Your task to perform on an android device: open app "Facebook" (install if not already installed) Image 0: 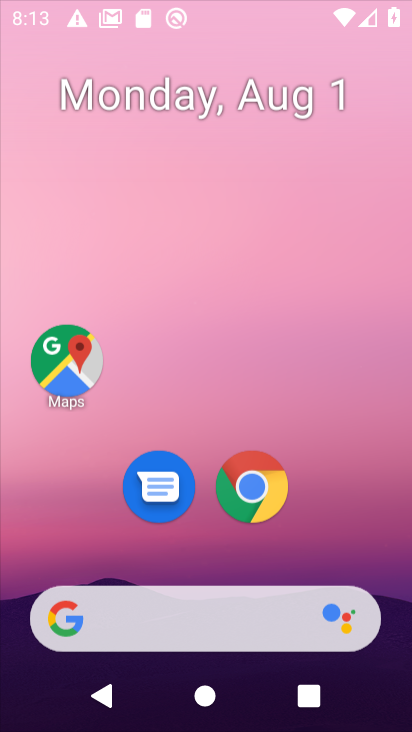
Step 0: press home button
Your task to perform on an android device: open app "Facebook" (install if not already installed) Image 1: 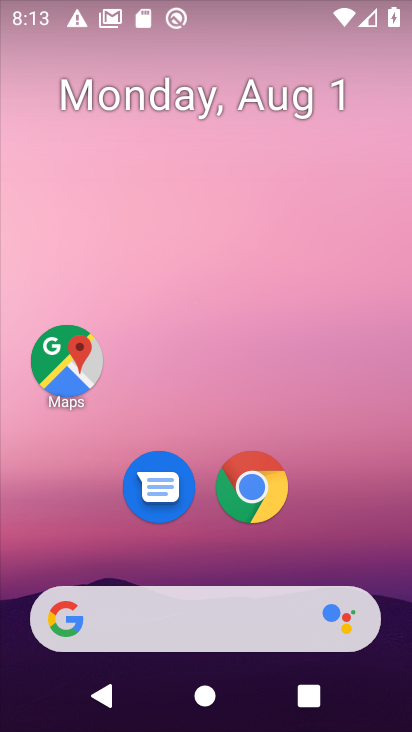
Step 1: drag from (370, 519) to (336, 84)
Your task to perform on an android device: open app "Facebook" (install if not already installed) Image 2: 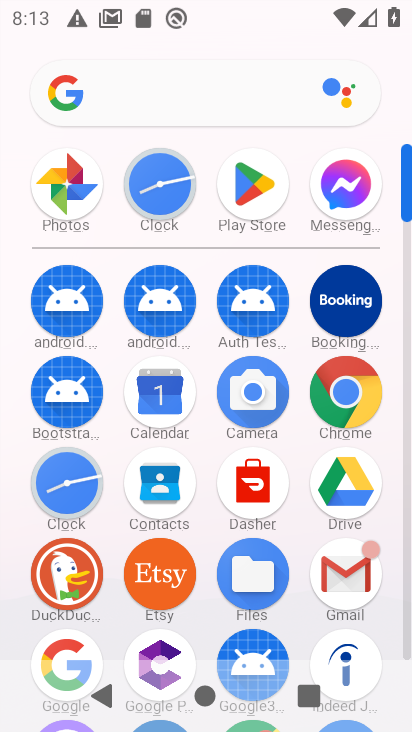
Step 2: click (258, 185)
Your task to perform on an android device: open app "Facebook" (install if not already installed) Image 3: 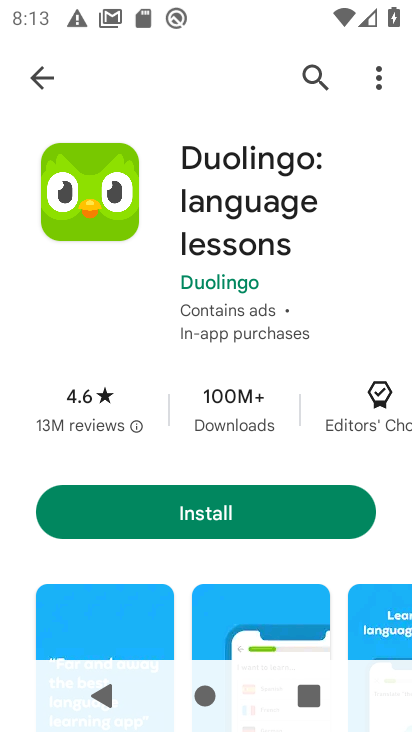
Step 3: click (310, 65)
Your task to perform on an android device: open app "Facebook" (install if not already installed) Image 4: 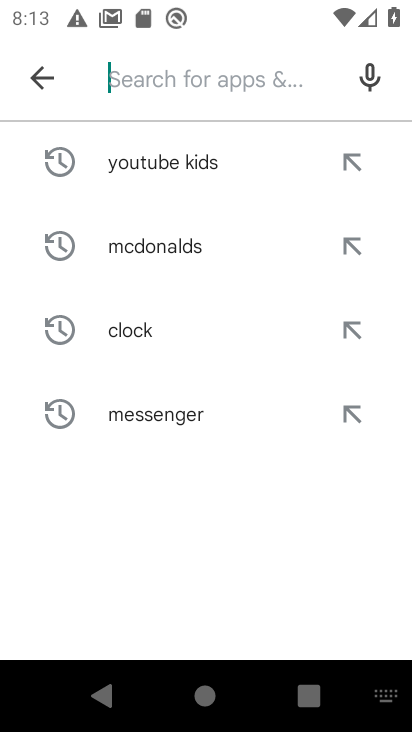
Step 4: type "facebook"
Your task to perform on an android device: open app "Facebook" (install if not already installed) Image 5: 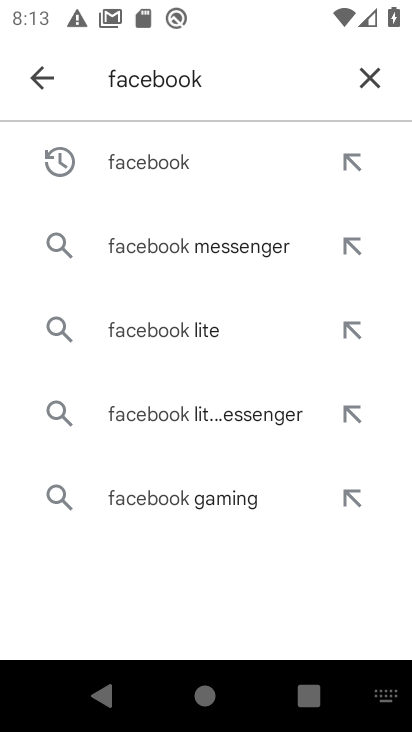
Step 5: click (176, 170)
Your task to perform on an android device: open app "Facebook" (install if not already installed) Image 6: 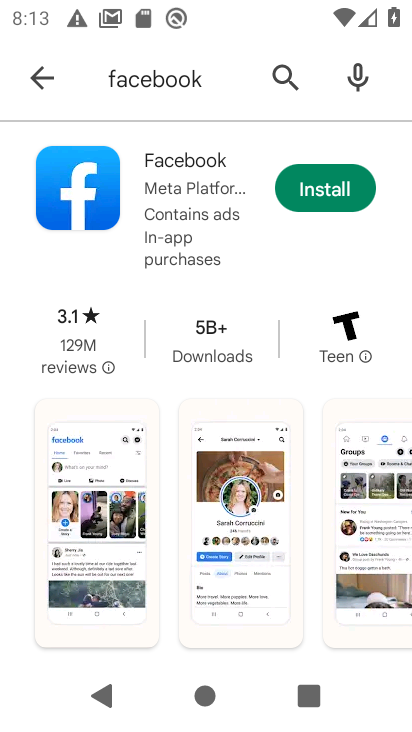
Step 6: click (346, 183)
Your task to perform on an android device: open app "Facebook" (install if not already installed) Image 7: 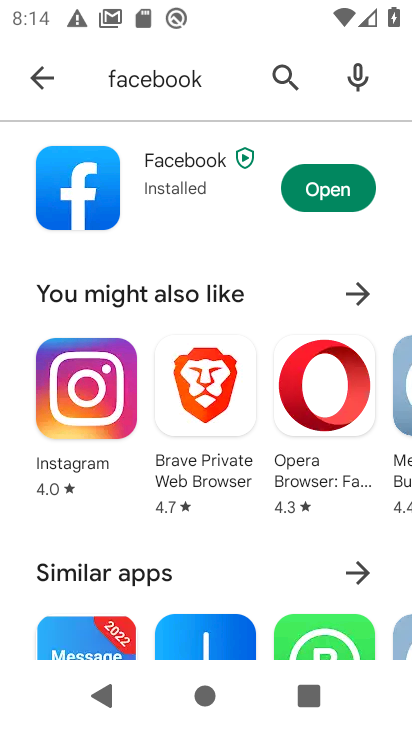
Step 7: click (339, 186)
Your task to perform on an android device: open app "Facebook" (install if not already installed) Image 8: 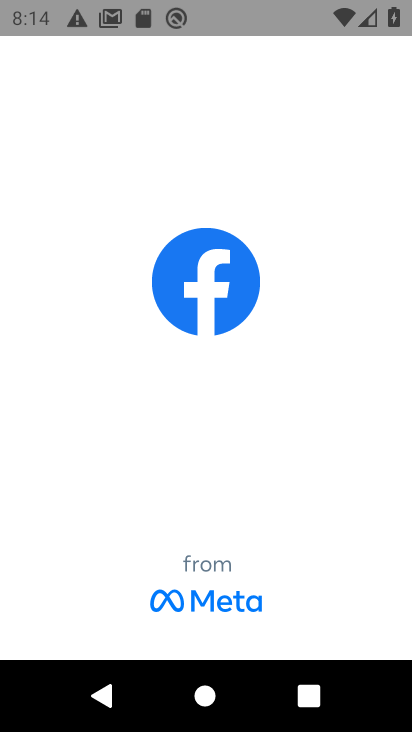
Step 8: task complete